Your task to perform on an android device: Do I have any events today? Image 0: 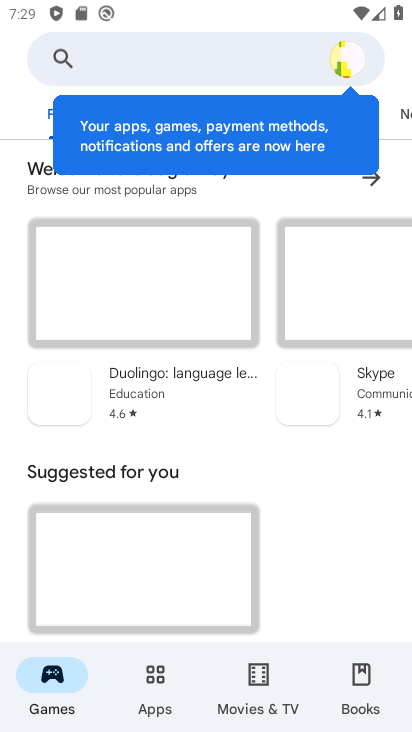
Step 0: press back button
Your task to perform on an android device: Do I have any events today? Image 1: 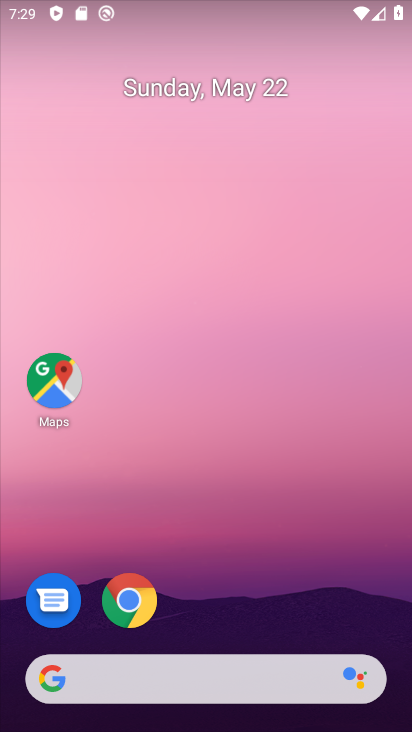
Step 1: drag from (225, 334) to (205, 0)
Your task to perform on an android device: Do I have any events today? Image 2: 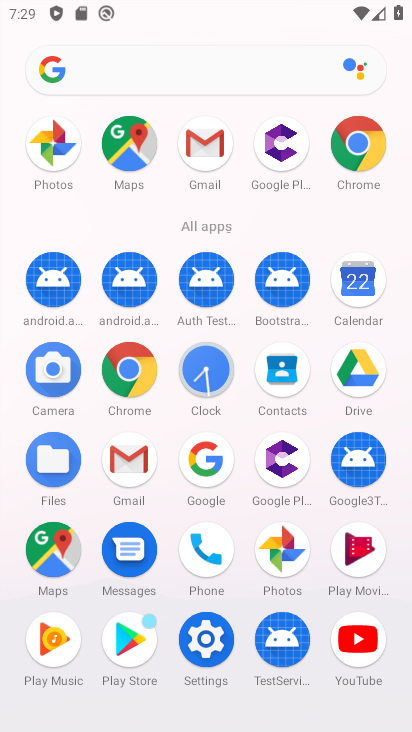
Step 2: click (360, 273)
Your task to perform on an android device: Do I have any events today? Image 3: 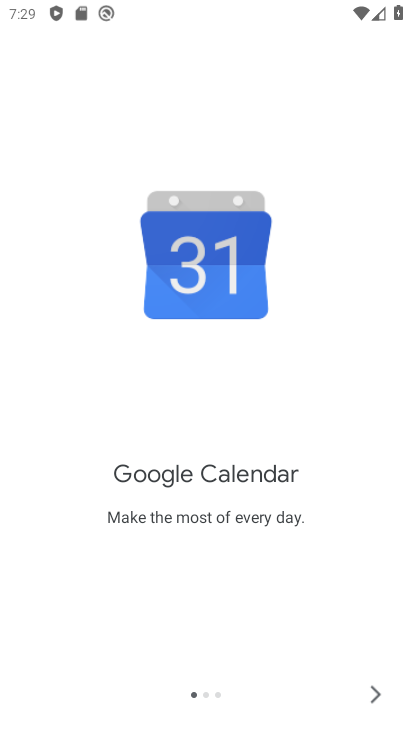
Step 3: click (373, 685)
Your task to perform on an android device: Do I have any events today? Image 4: 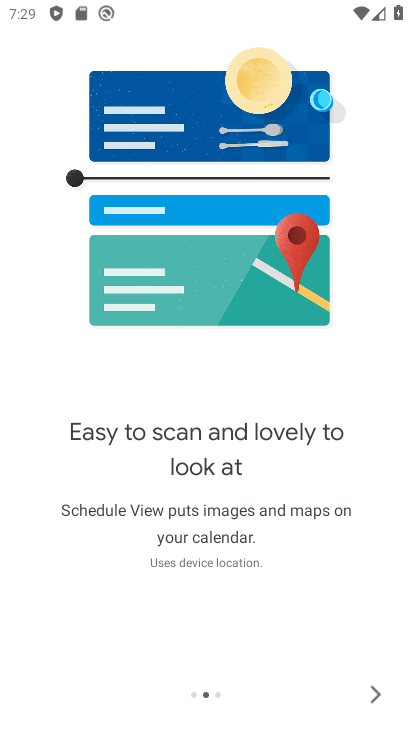
Step 4: click (373, 683)
Your task to perform on an android device: Do I have any events today? Image 5: 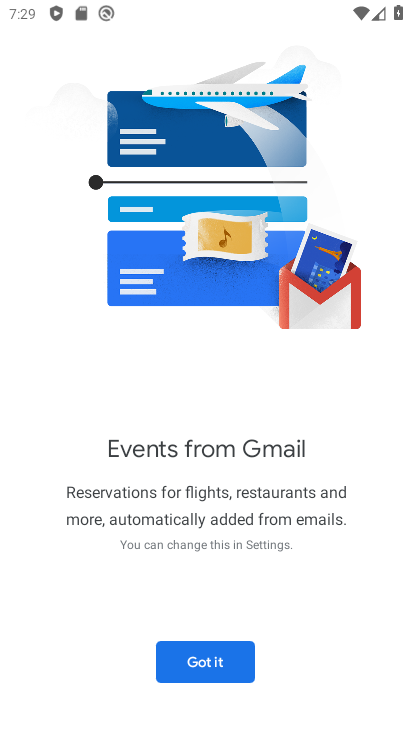
Step 5: click (184, 643)
Your task to perform on an android device: Do I have any events today? Image 6: 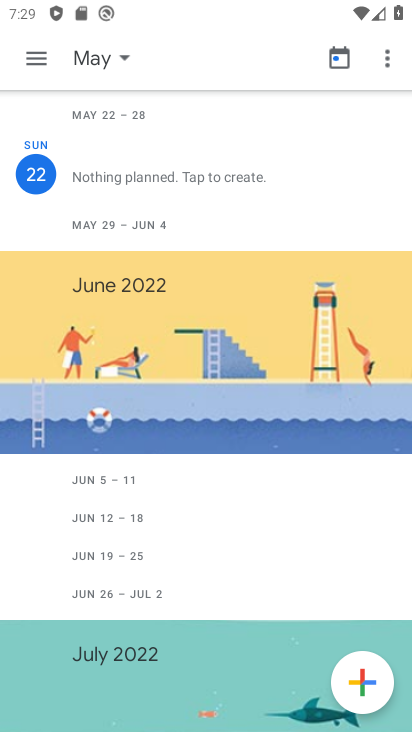
Step 6: click (343, 62)
Your task to perform on an android device: Do I have any events today? Image 7: 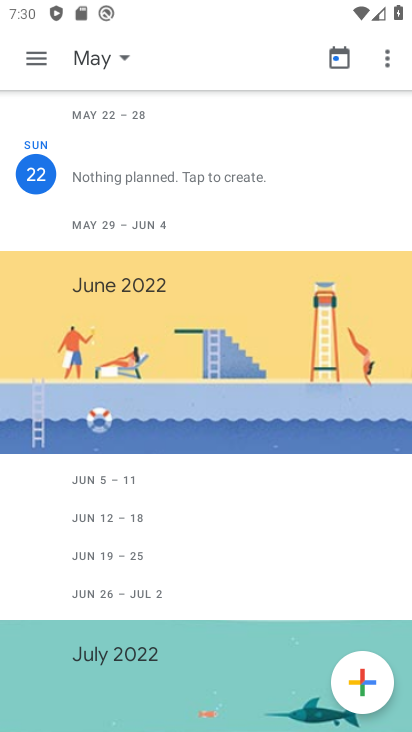
Step 7: task complete